Your task to perform on an android device: toggle pop-ups in chrome Image 0: 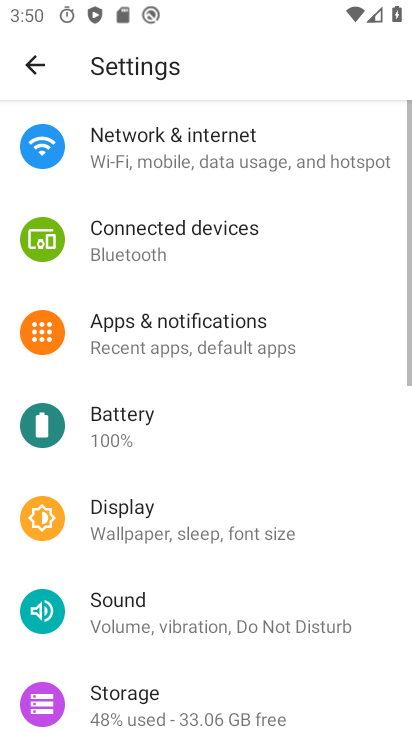
Step 0: press home button
Your task to perform on an android device: toggle pop-ups in chrome Image 1: 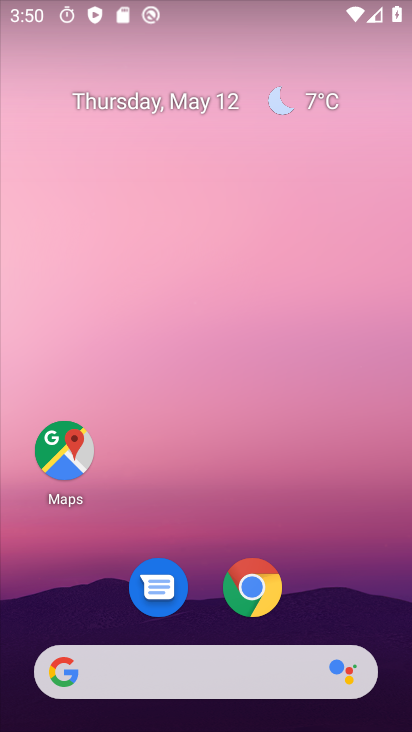
Step 1: click (257, 596)
Your task to perform on an android device: toggle pop-ups in chrome Image 2: 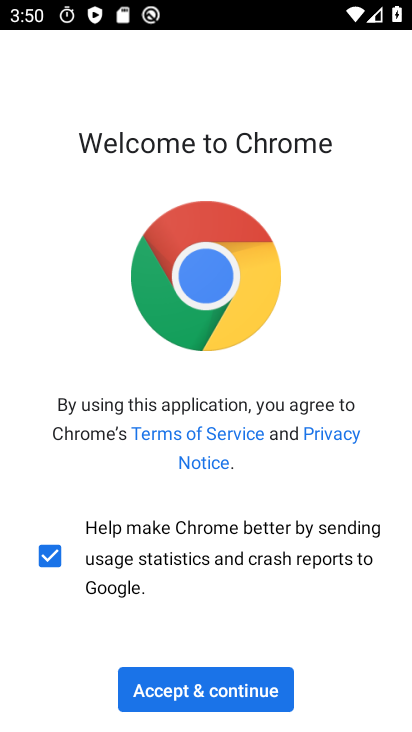
Step 2: click (272, 693)
Your task to perform on an android device: toggle pop-ups in chrome Image 3: 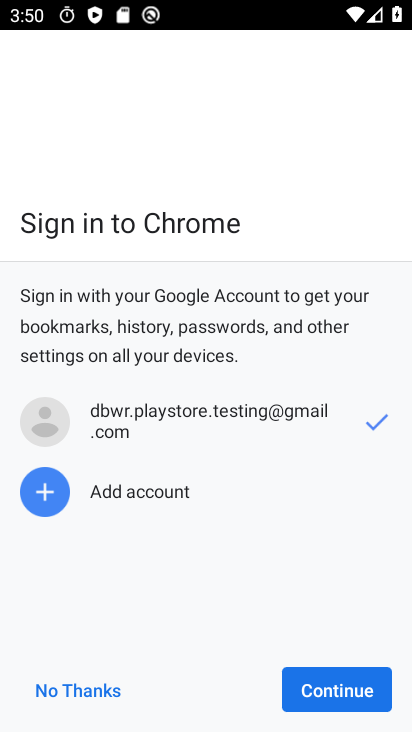
Step 3: click (374, 701)
Your task to perform on an android device: toggle pop-ups in chrome Image 4: 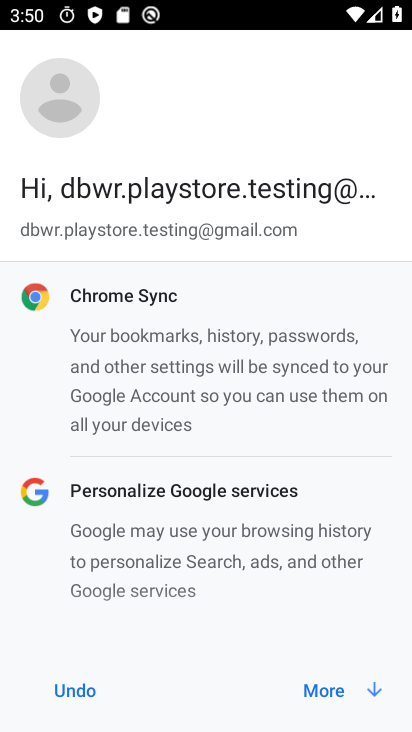
Step 4: click (361, 697)
Your task to perform on an android device: toggle pop-ups in chrome Image 5: 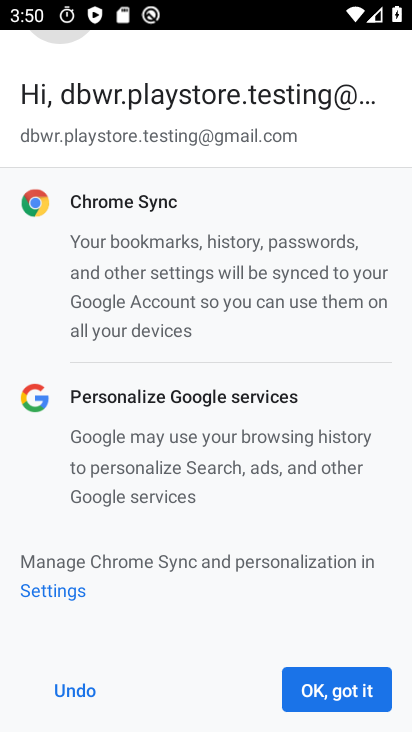
Step 5: click (361, 697)
Your task to perform on an android device: toggle pop-ups in chrome Image 6: 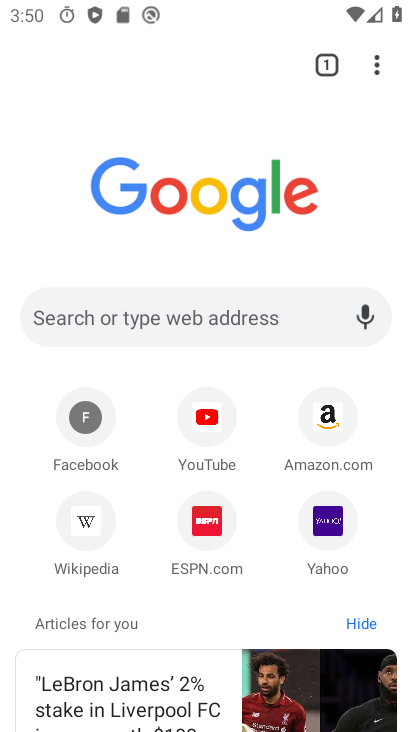
Step 6: drag from (382, 73) to (269, 554)
Your task to perform on an android device: toggle pop-ups in chrome Image 7: 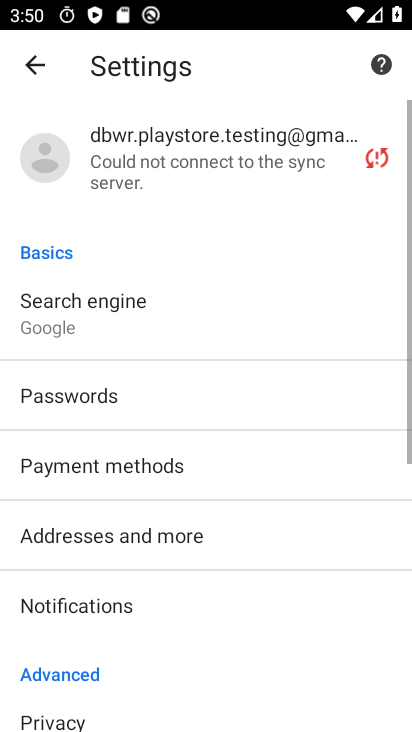
Step 7: drag from (179, 630) to (273, 235)
Your task to perform on an android device: toggle pop-ups in chrome Image 8: 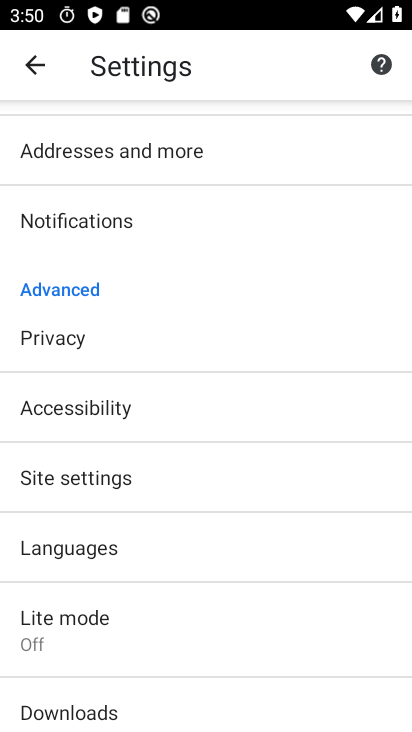
Step 8: click (150, 474)
Your task to perform on an android device: toggle pop-ups in chrome Image 9: 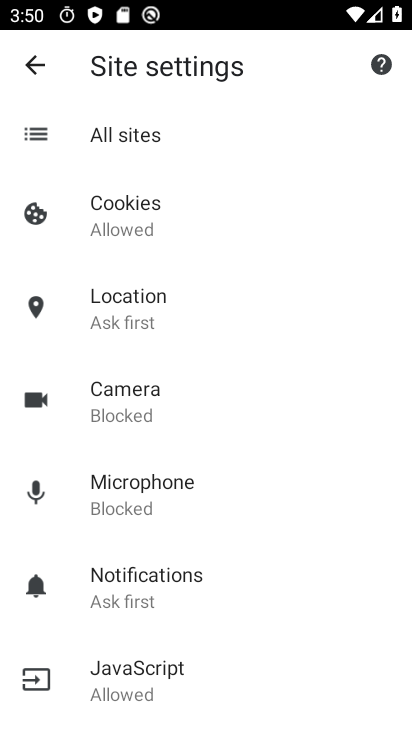
Step 9: drag from (171, 598) to (280, 240)
Your task to perform on an android device: toggle pop-ups in chrome Image 10: 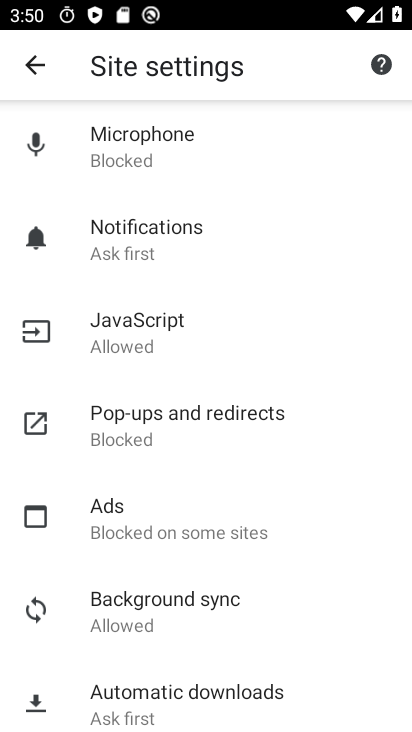
Step 10: click (275, 437)
Your task to perform on an android device: toggle pop-ups in chrome Image 11: 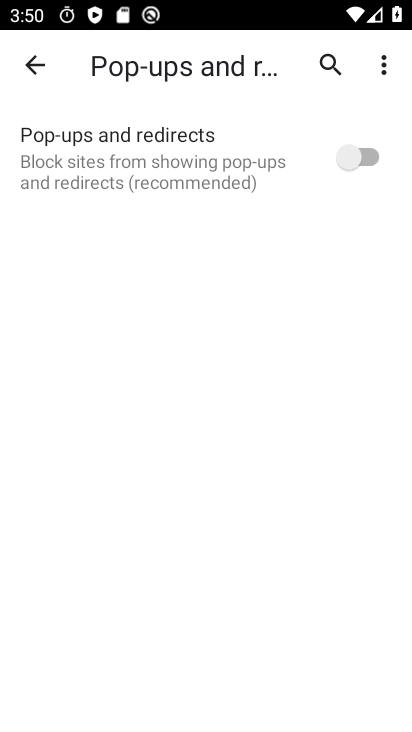
Step 11: click (389, 139)
Your task to perform on an android device: toggle pop-ups in chrome Image 12: 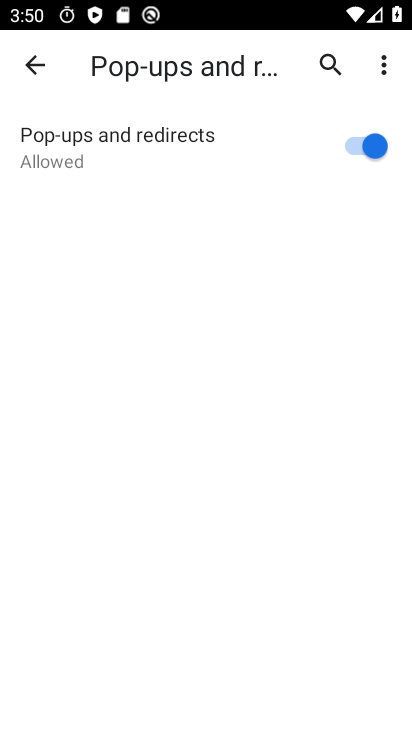
Step 12: task complete